Your task to perform on an android device: turn off notifications in google photos Image 0: 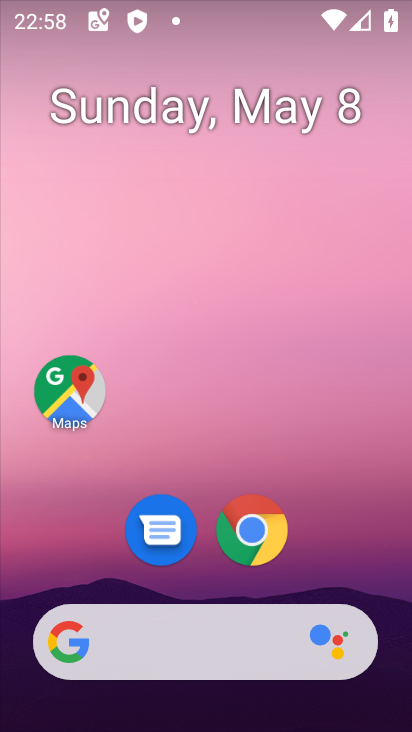
Step 0: drag from (349, 526) to (352, 117)
Your task to perform on an android device: turn off notifications in google photos Image 1: 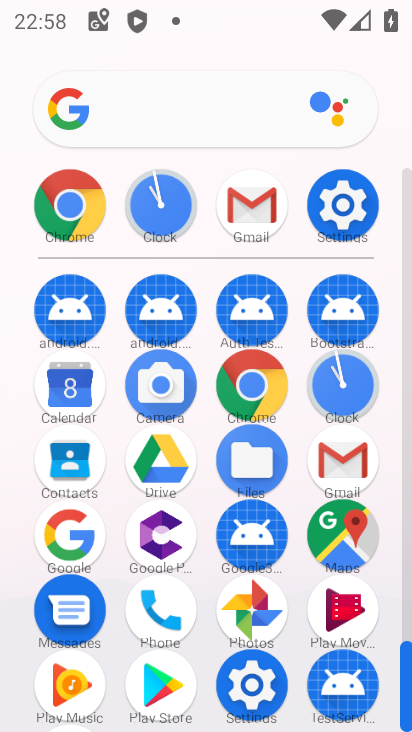
Step 1: click (244, 622)
Your task to perform on an android device: turn off notifications in google photos Image 2: 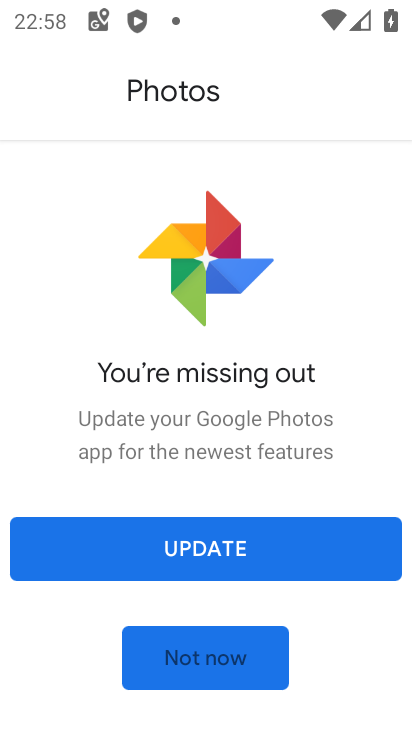
Step 2: click (195, 543)
Your task to perform on an android device: turn off notifications in google photos Image 3: 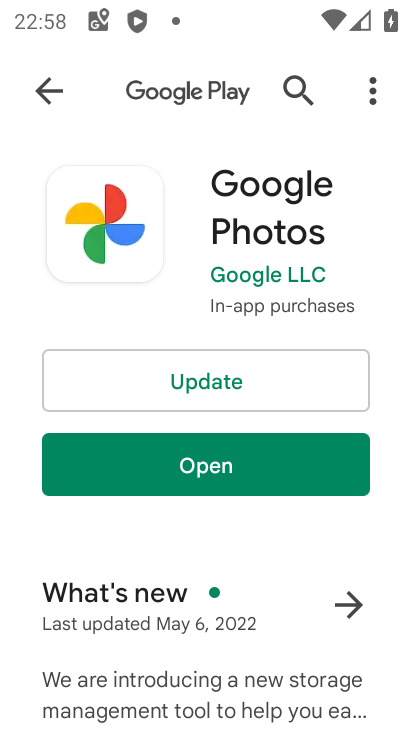
Step 3: click (229, 374)
Your task to perform on an android device: turn off notifications in google photos Image 4: 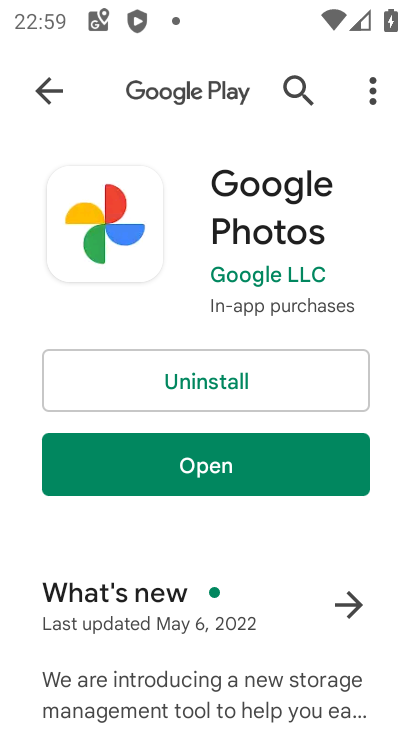
Step 4: click (156, 481)
Your task to perform on an android device: turn off notifications in google photos Image 5: 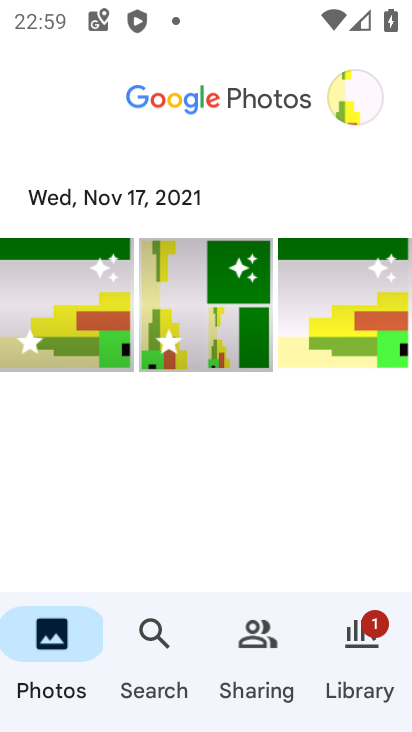
Step 5: click (364, 630)
Your task to perform on an android device: turn off notifications in google photos Image 6: 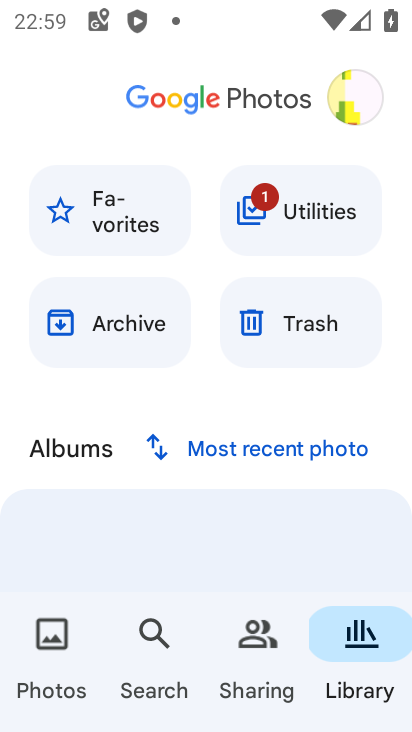
Step 6: click (378, 100)
Your task to perform on an android device: turn off notifications in google photos Image 7: 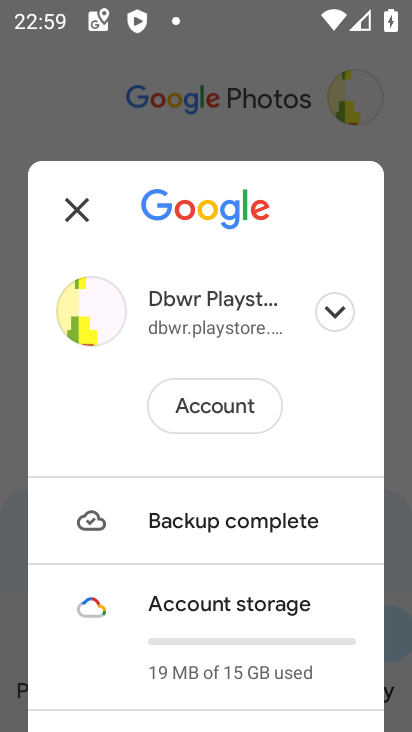
Step 7: drag from (269, 621) to (283, 382)
Your task to perform on an android device: turn off notifications in google photos Image 8: 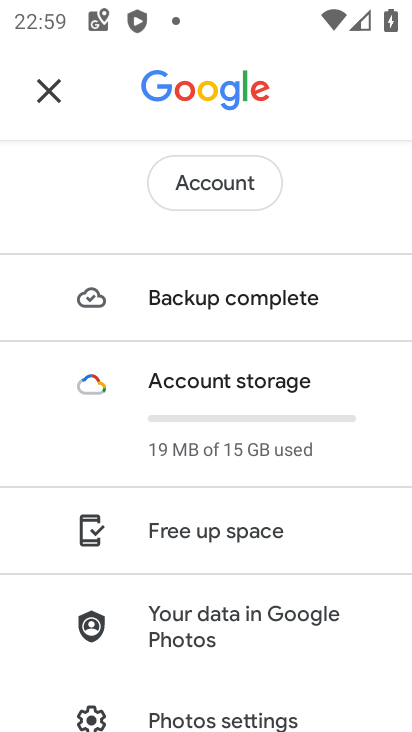
Step 8: drag from (267, 705) to (346, 418)
Your task to perform on an android device: turn off notifications in google photos Image 9: 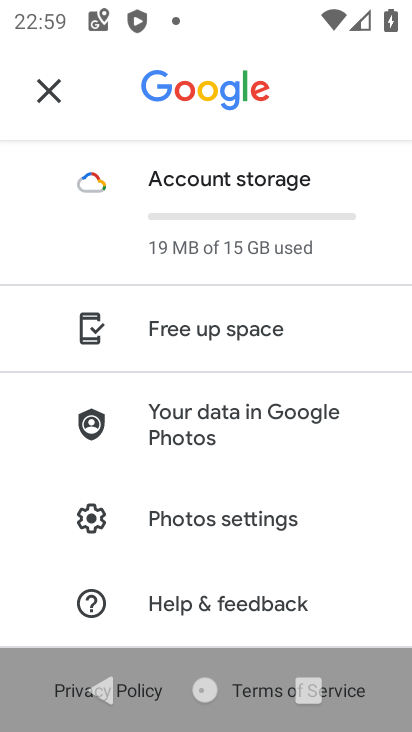
Step 9: click (247, 515)
Your task to perform on an android device: turn off notifications in google photos Image 10: 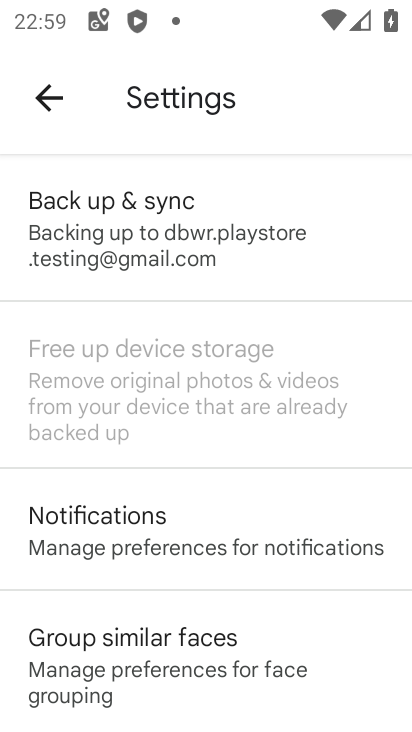
Step 10: drag from (176, 600) to (265, 315)
Your task to perform on an android device: turn off notifications in google photos Image 11: 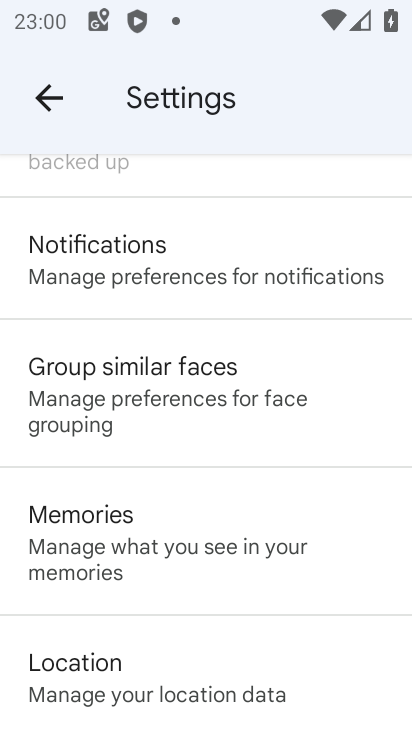
Step 11: click (158, 279)
Your task to perform on an android device: turn off notifications in google photos Image 12: 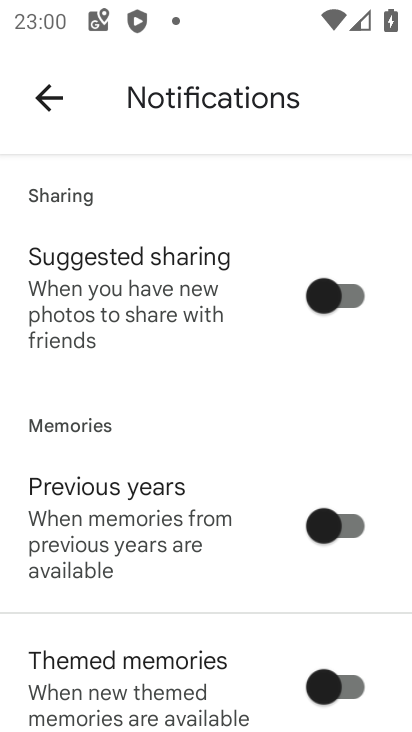
Step 12: drag from (169, 625) to (214, 203)
Your task to perform on an android device: turn off notifications in google photos Image 13: 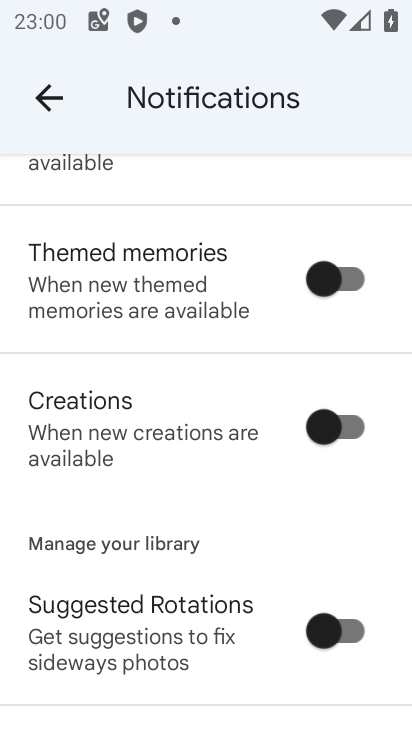
Step 13: drag from (177, 624) to (190, 151)
Your task to perform on an android device: turn off notifications in google photos Image 14: 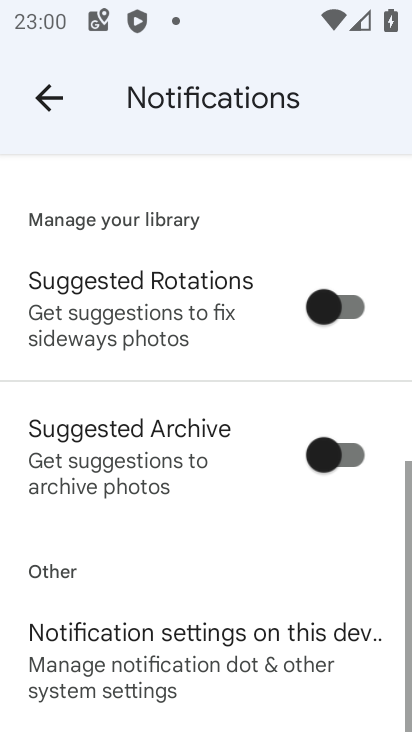
Step 14: click (128, 647)
Your task to perform on an android device: turn off notifications in google photos Image 15: 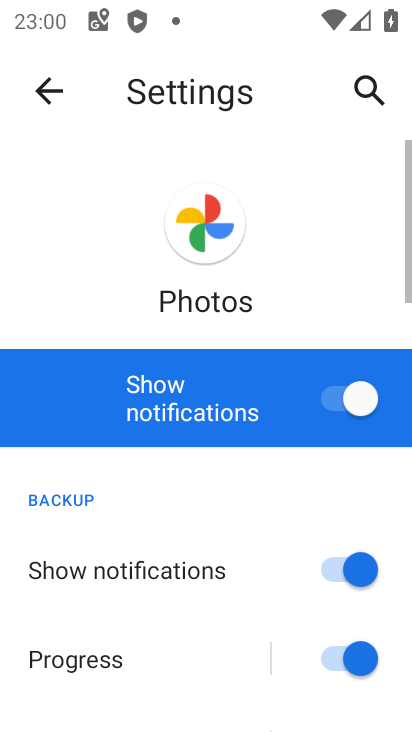
Step 15: click (342, 384)
Your task to perform on an android device: turn off notifications in google photos Image 16: 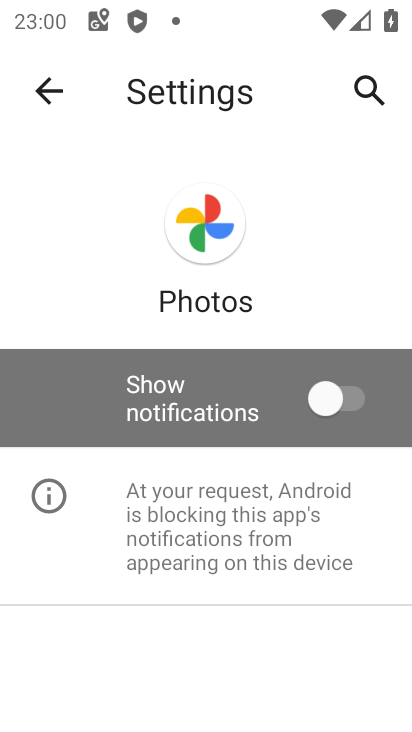
Step 16: task complete